Your task to perform on an android device: When is my next appointment? Image 0: 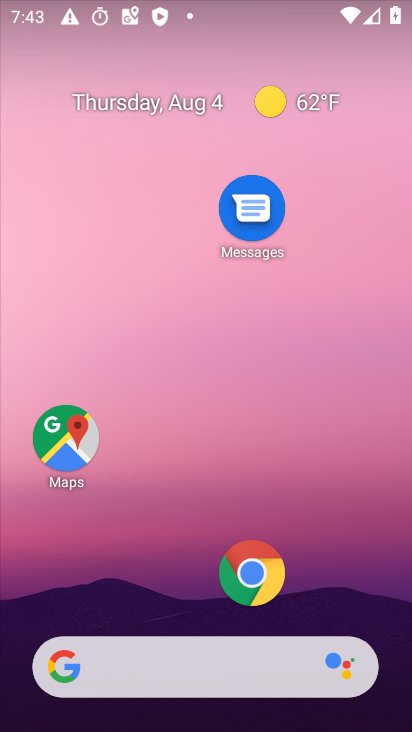
Step 0: press home button
Your task to perform on an android device: When is my next appointment? Image 1: 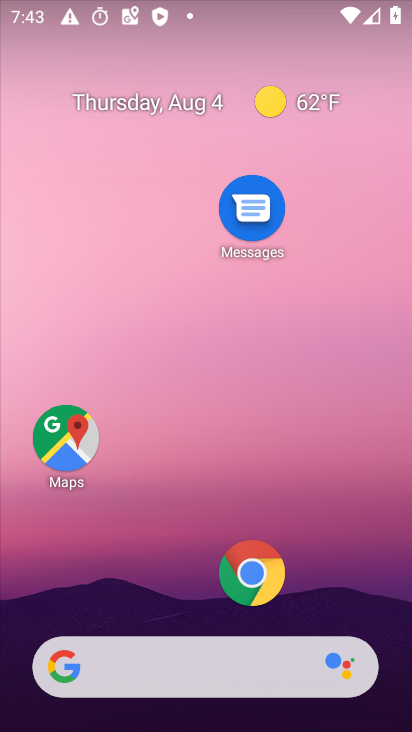
Step 1: drag from (163, 614) to (173, 86)
Your task to perform on an android device: When is my next appointment? Image 2: 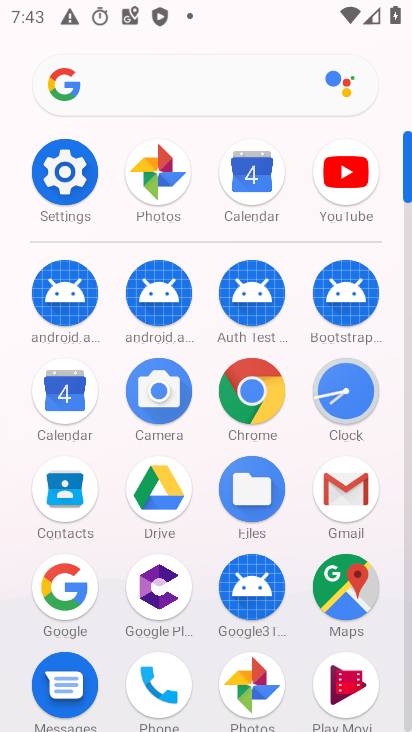
Step 2: click (68, 388)
Your task to perform on an android device: When is my next appointment? Image 3: 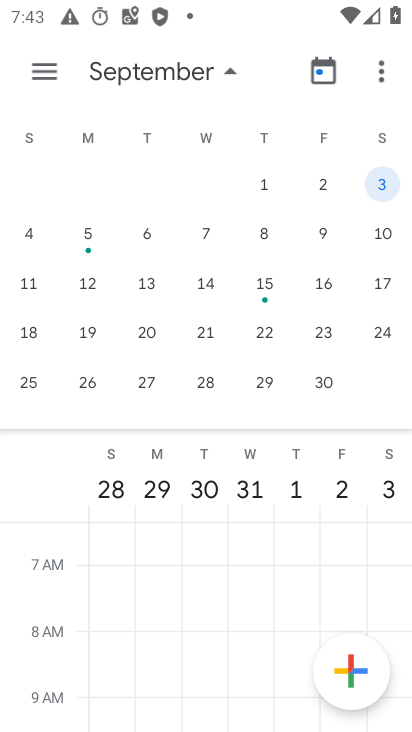
Step 3: click (50, 61)
Your task to perform on an android device: When is my next appointment? Image 4: 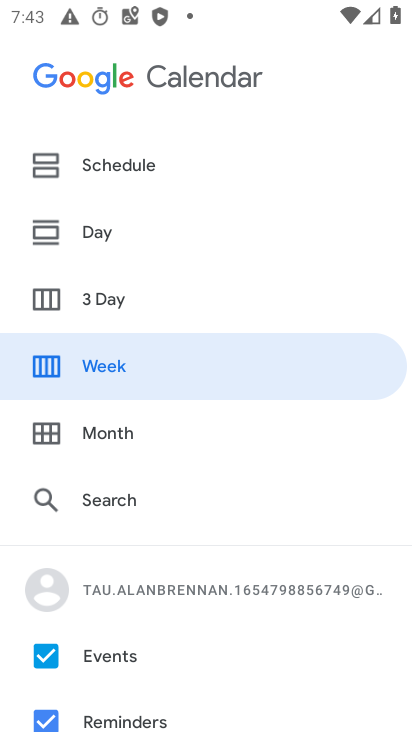
Step 4: click (103, 167)
Your task to perform on an android device: When is my next appointment? Image 5: 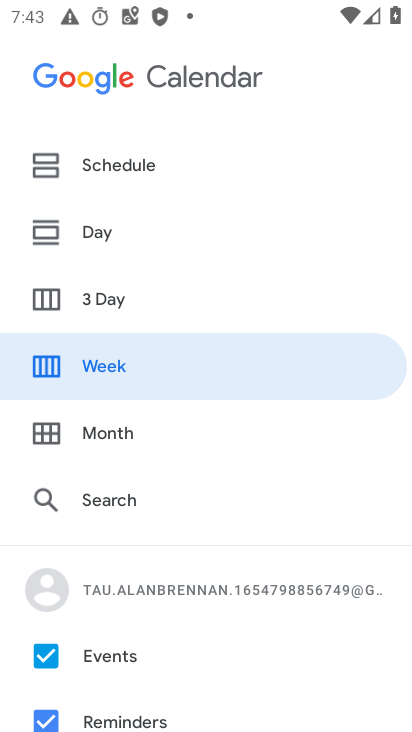
Step 5: click (96, 165)
Your task to perform on an android device: When is my next appointment? Image 6: 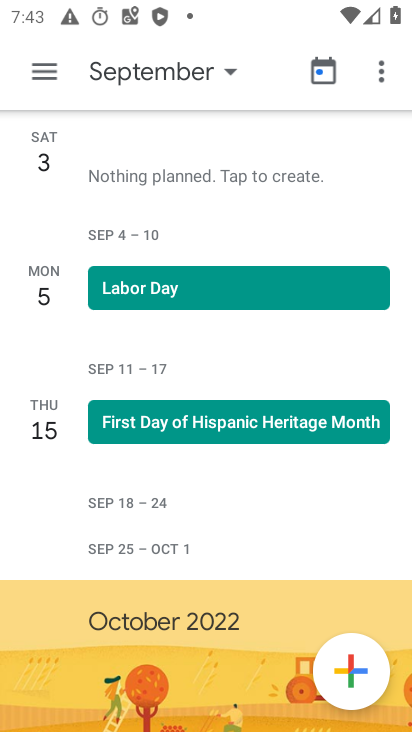
Step 6: task complete